Your task to perform on an android device: open the mobile data screen to see how much data has been used Image 0: 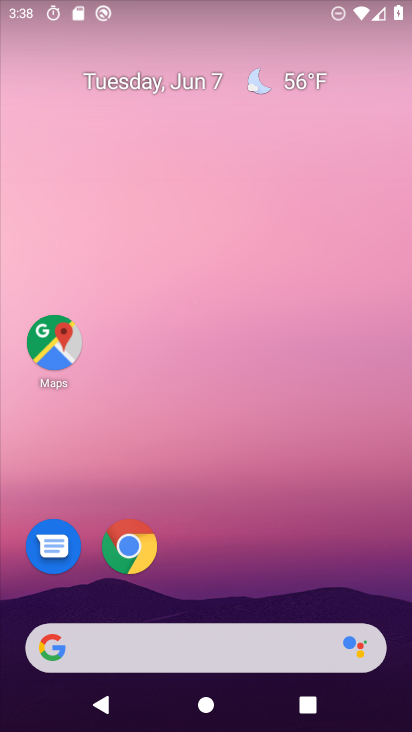
Step 0: drag from (276, 528) to (219, 15)
Your task to perform on an android device: open the mobile data screen to see how much data has been used Image 1: 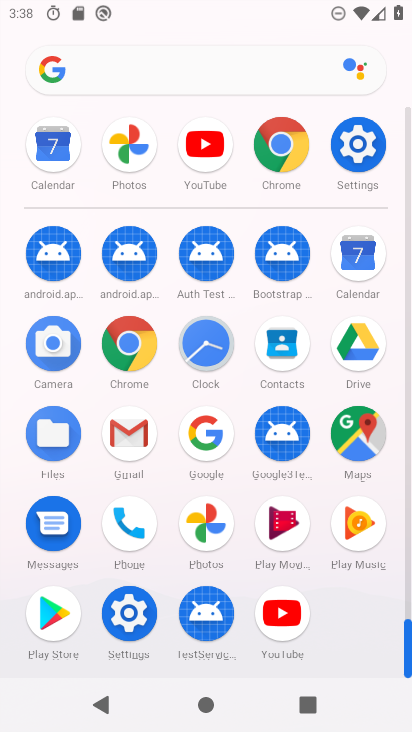
Step 1: drag from (12, 490) to (12, 230)
Your task to perform on an android device: open the mobile data screen to see how much data has been used Image 2: 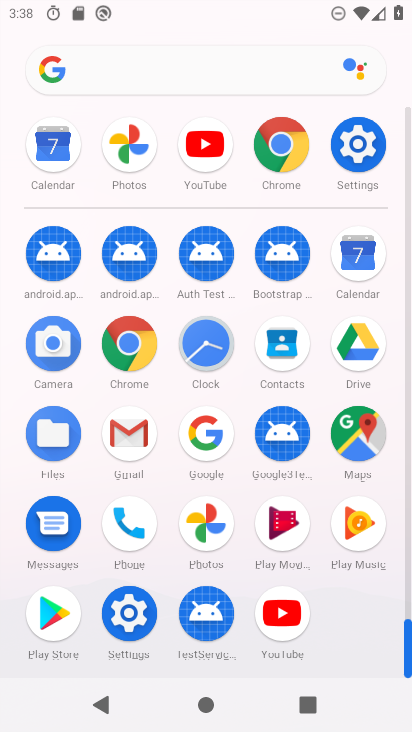
Step 2: click (127, 610)
Your task to perform on an android device: open the mobile data screen to see how much data has been used Image 3: 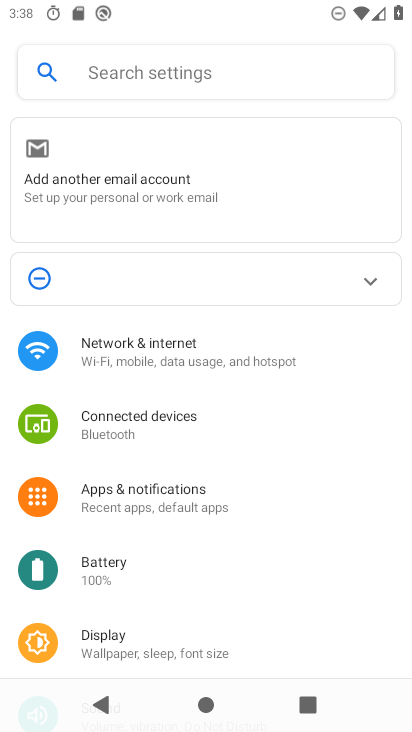
Step 3: click (177, 342)
Your task to perform on an android device: open the mobile data screen to see how much data has been used Image 4: 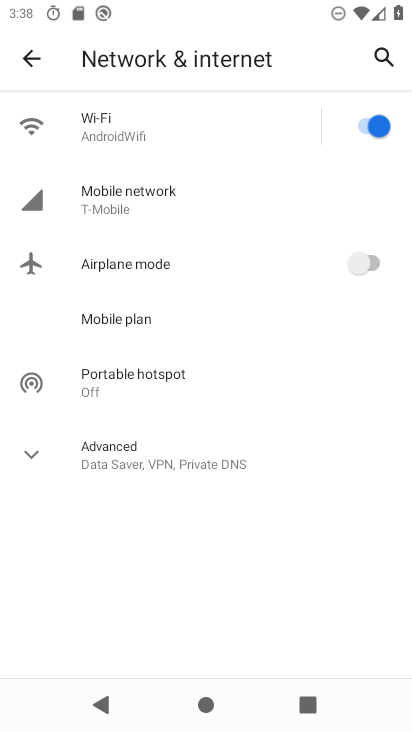
Step 4: click (144, 208)
Your task to perform on an android device: open the mobile data screen to see how much data has been used Image 5: 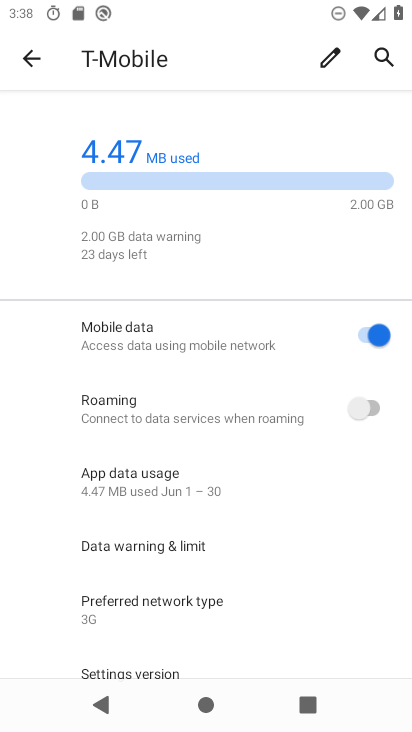
Step 5: task complete